Your task to perform on an android device: Go to wifi settings Image 0: 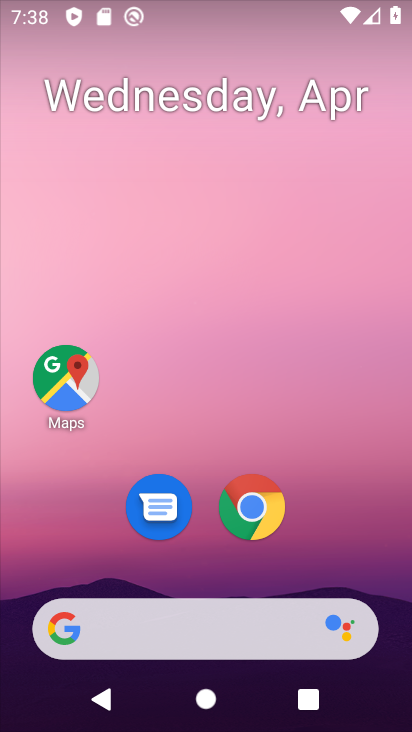
Step 0: drag from (351, 532) to (194, 0)
Your task to perform on an android device: Go to wifi settings Image 1: 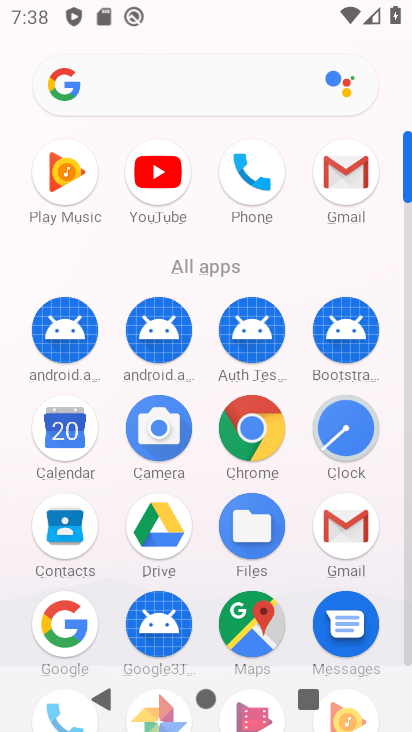
Step 1: drag from (14, 513) to (14, 256)
Your task to perform on an android device: Go to wifi settings Image 2: 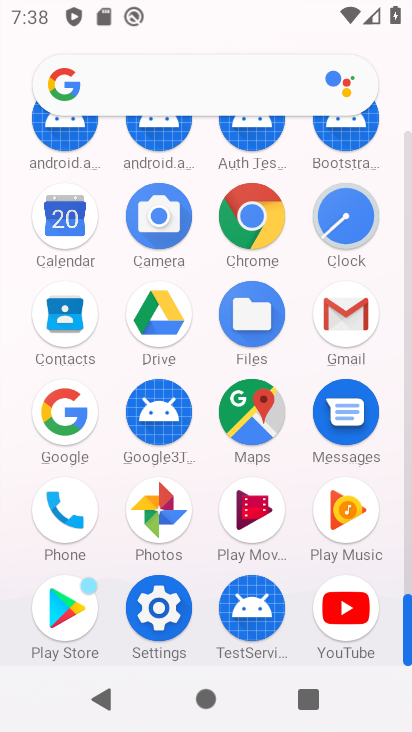
Step 2: click (155, 608)
Your task to perform on an android device: Go to wifi settings Image 3: 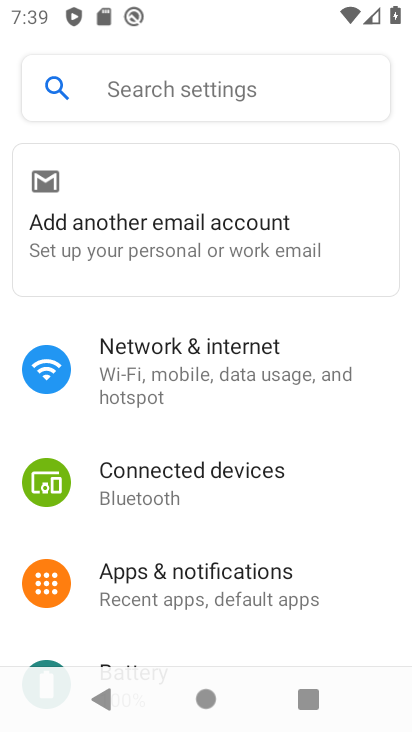
Step 3: click (229, 356)
Your task to perform on an android device: Go to wifi settings Image 4: 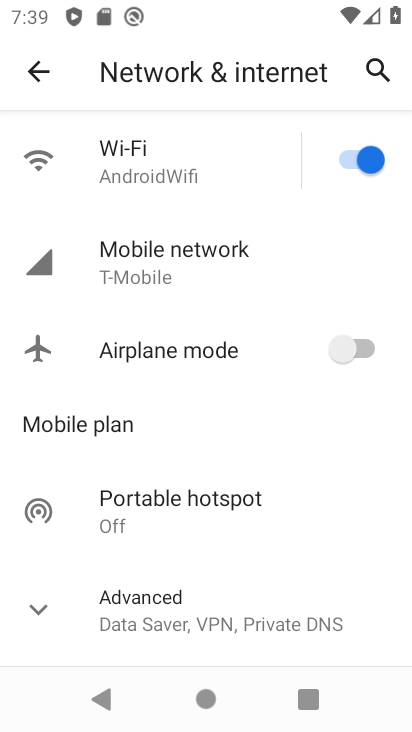
Step 4: click (190, 148)
Your task to perform on an android device: Go to wifi settings Image 5: 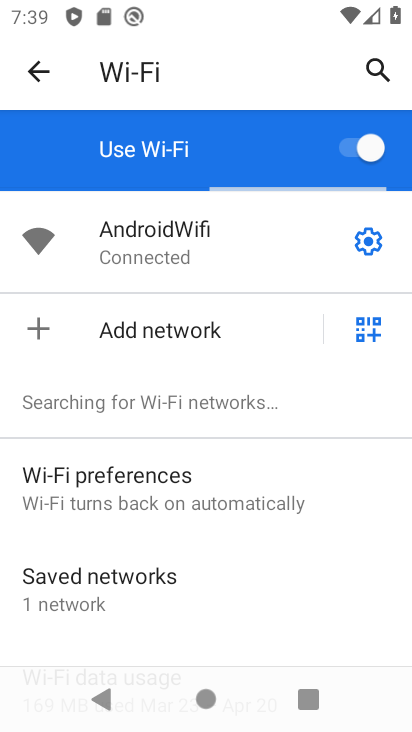
Step 5: task complete